Your task to perform on an android device: change timer sound Image 0: 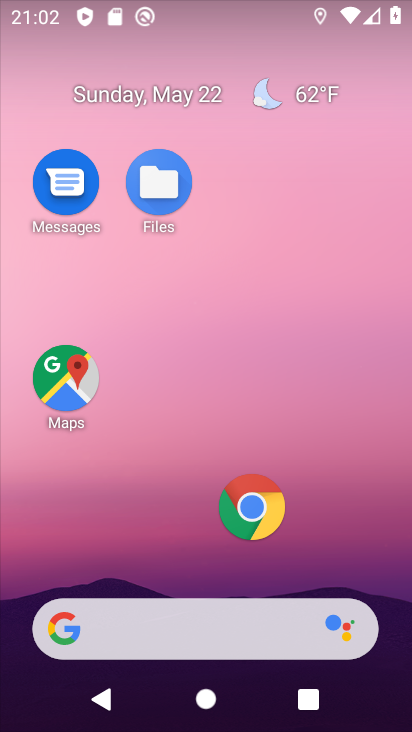
Step 0: drag from (205, 578) to (79, 234)
Your task to perform on an android device: change timer sound Image 1: 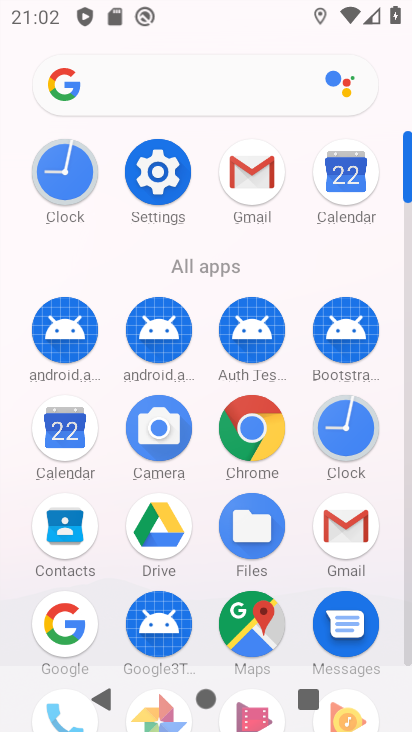
Step 1: click (353, 437)
Your task to perform on an android device: change timer sound Image 2: 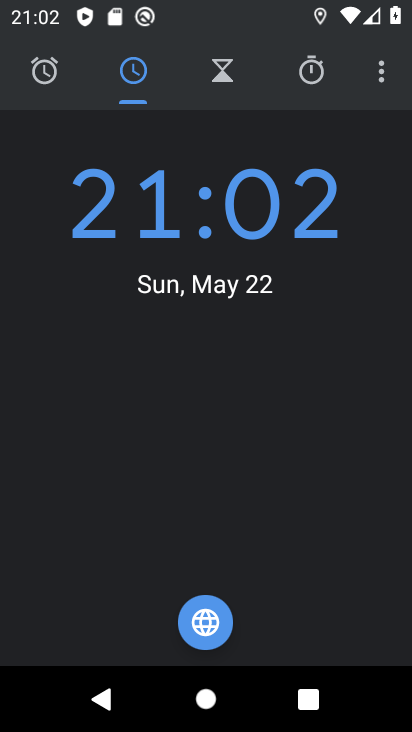
Step 2: click (380, 70)
Your task to perform on an android device: change timer sound Image 3: 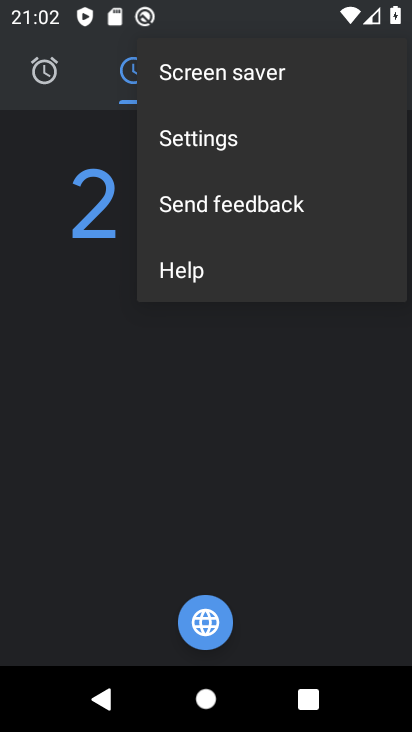
Step 3: click (241, 150)
Your task to perform on an android device: change timer sound Image 4: 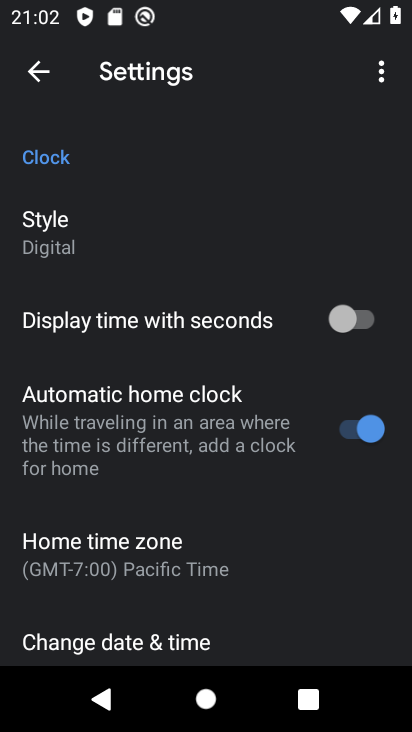
Step 4: drag from (202, 481) to (163, 157)
Your task to perform on an android device: change timer sound Image 5: 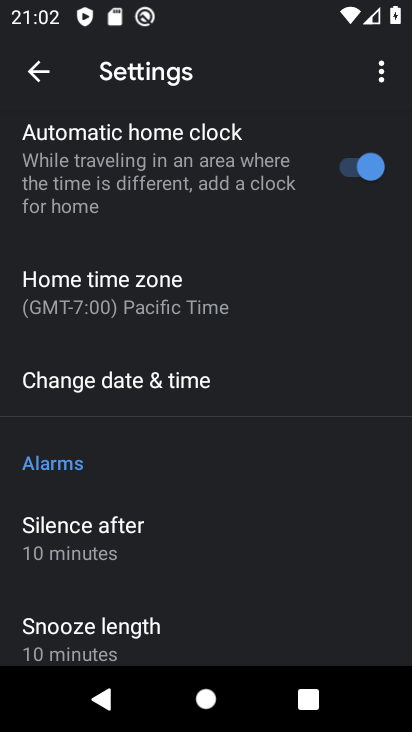
Step 5: drag from (225, 540) to (147, 211)
Your task to perform on an android device: change timer sound Image 6: 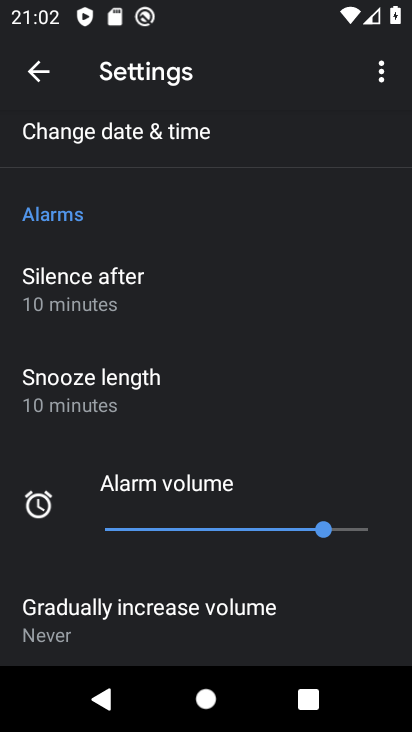
Step 6: drag from (256, 479) to (245, 26)
Your task to perform on an android device: change timer sound Image 7: 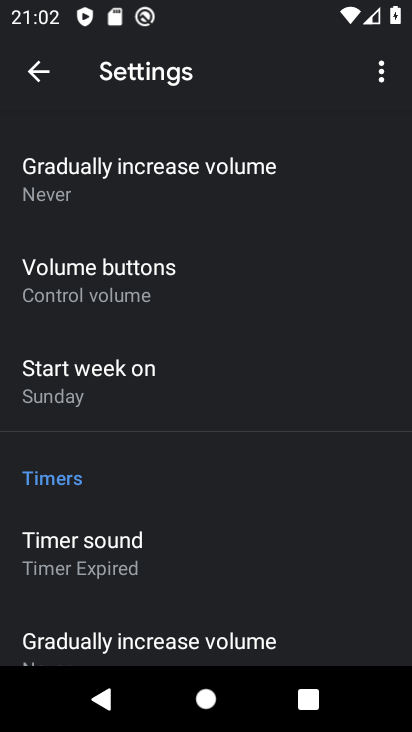
Step 7: click (111, 544)
Your task to perform on an android device: change timer sound Image 8: 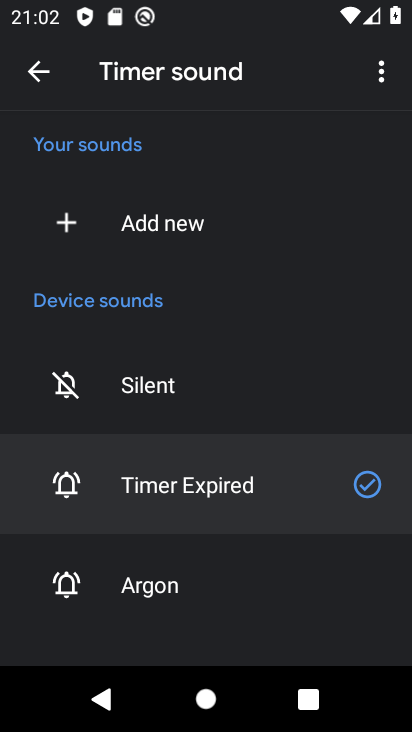
Step 8: click (118, 569)
Your task to perform on an android device: change timer sound Image 9: 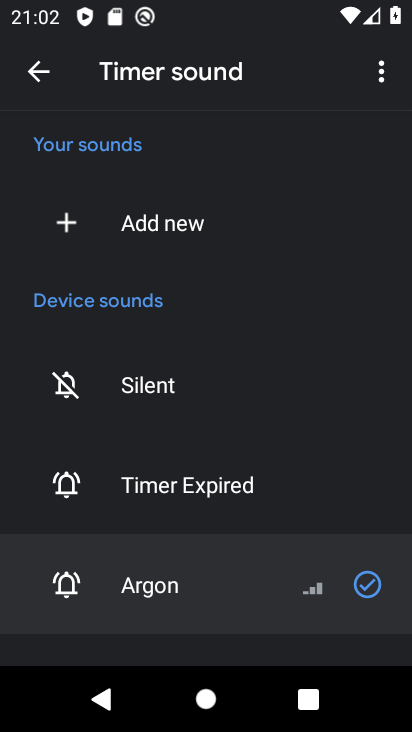
Step 9: task complete